Your task to perform on an android device: View the shopping cart on target. Search for beats solo 3 on target, select the first entry, add it to the cart, then select checkout. Image 0: 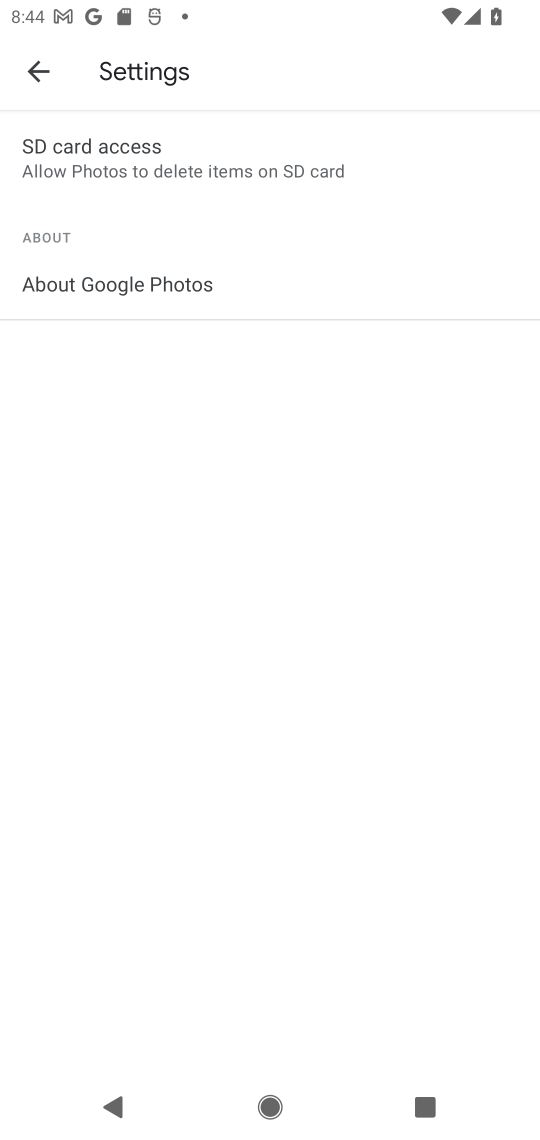
Step 0: press home button
Your task to perform on an android device: View the shopping cart on target. Search for beats solo 3 on target, select the first entry, add it to the cart, then select checkout. Image 1: 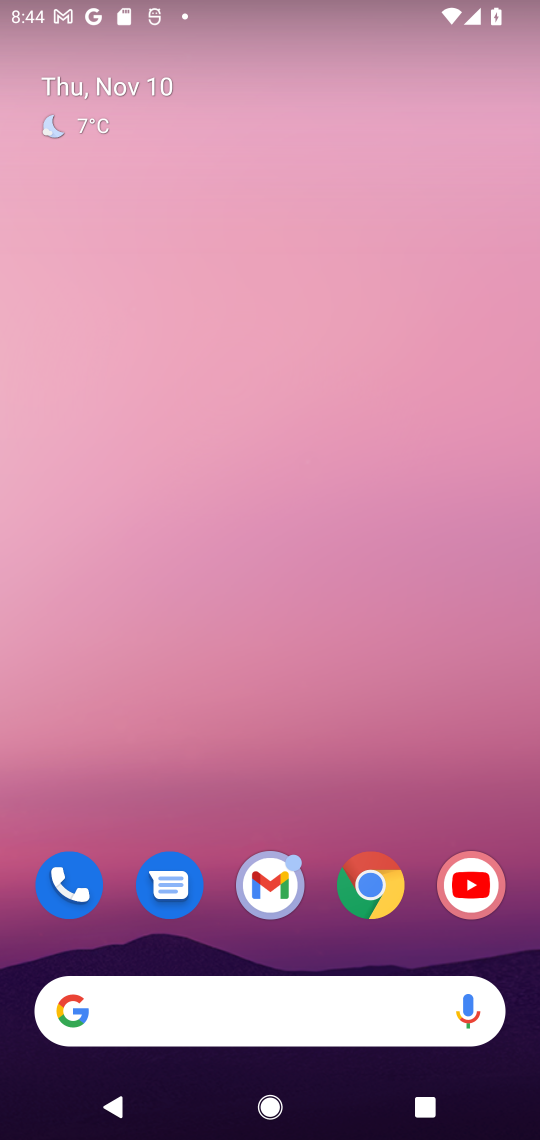
Step 1: click (356, 878)
Your task to perform on an android device: View the shopping cart on target. Search for beats solo 3 on target, select the first entry, add it to the cart, then select checkout. Image 2: 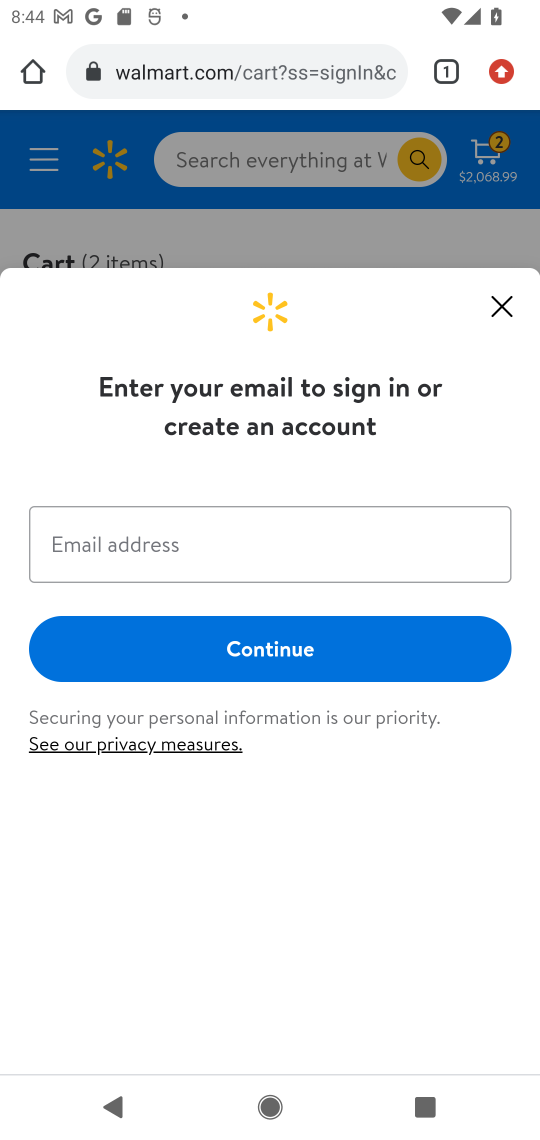
Step 2: click (231, 83)
Your task to perform on an android device: View the shopping cart on target. Search for beats solo 3 on target, select the first entry, add it to the cart, then select checkout. Image 3: 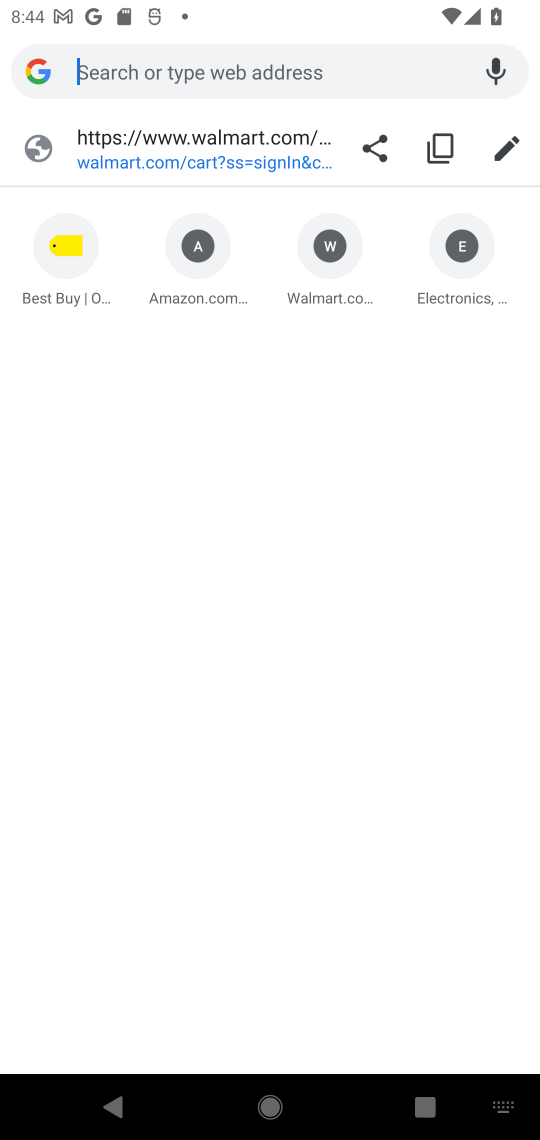
Step 3: type "target"
Your task to perform on an android device: View the shopping cart on target. Search for beats solo 3 on target, select the first entry, add it to the cart, then select checkout. Image 4: 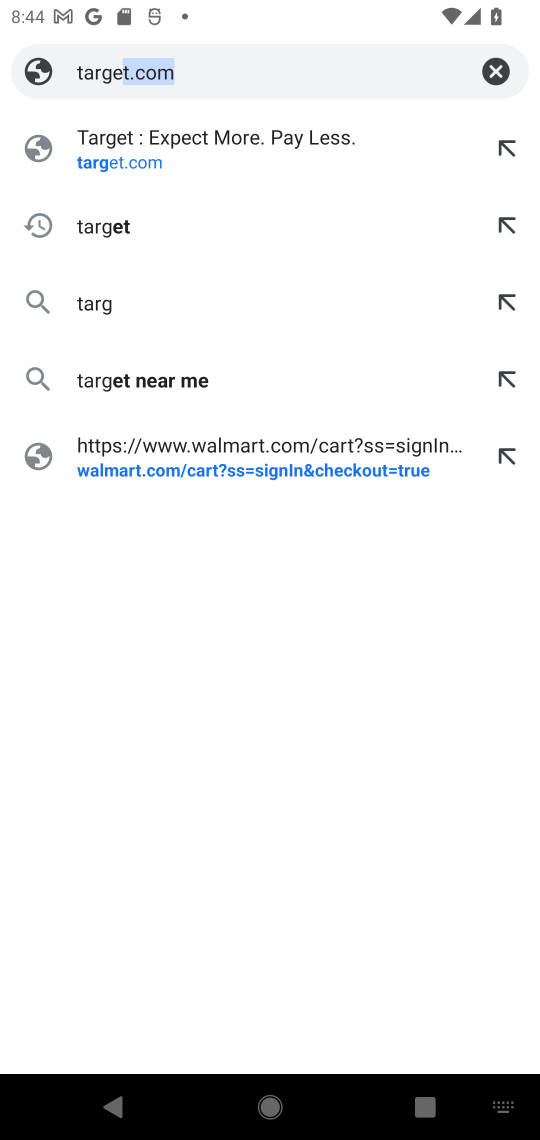
Step 4: press enter
Your task to perform on an android device: View the shopping cart on target. Search for beats solo 3 on target, select the first entry, add it to the cart, then select checkout. Image 5: 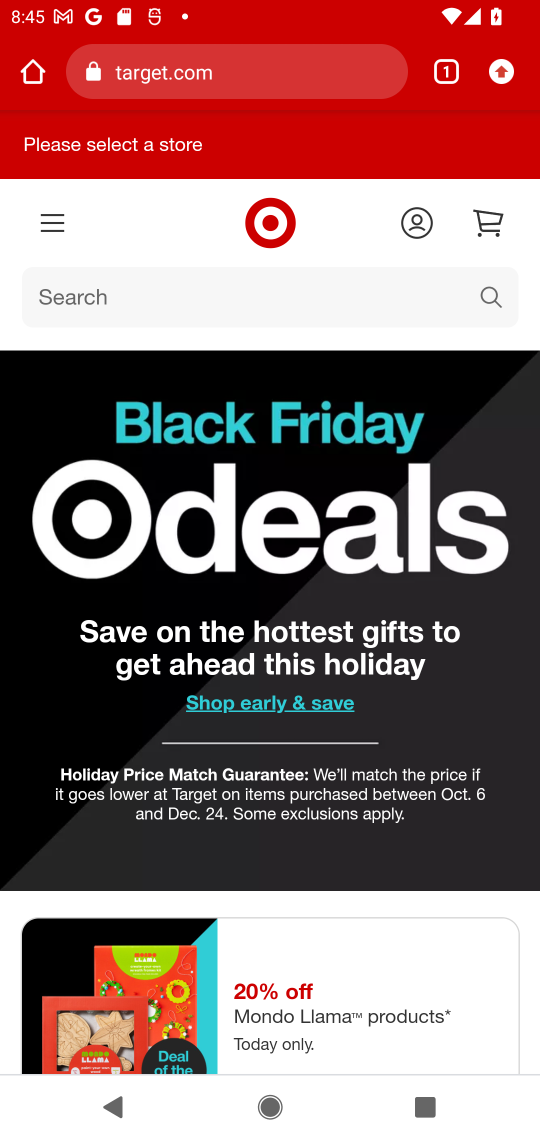
Step 5: click (494, 217)
Your task to perform on an android device: View the shopping cart on target. Search for beats solo 3 on target, select the first entry, add it to the cart, then select checkout. Image 6: 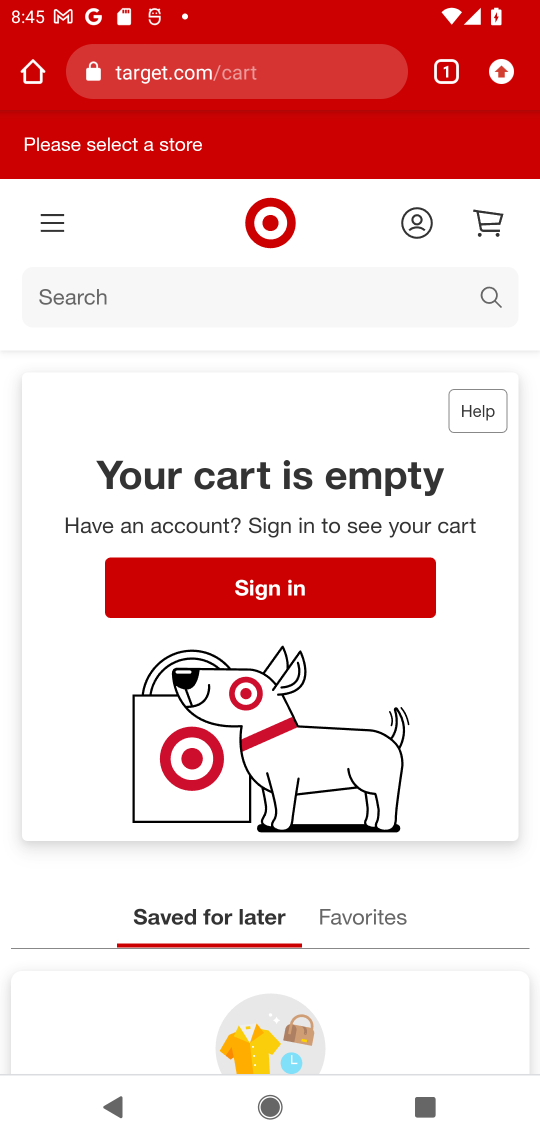
Step 6: click (491, 303)
Your task to perform on an android device: View the shopping cart on target. Search for beats solo 3 on target, select the first entry, add it to the cart, then select checkout. Image 7: 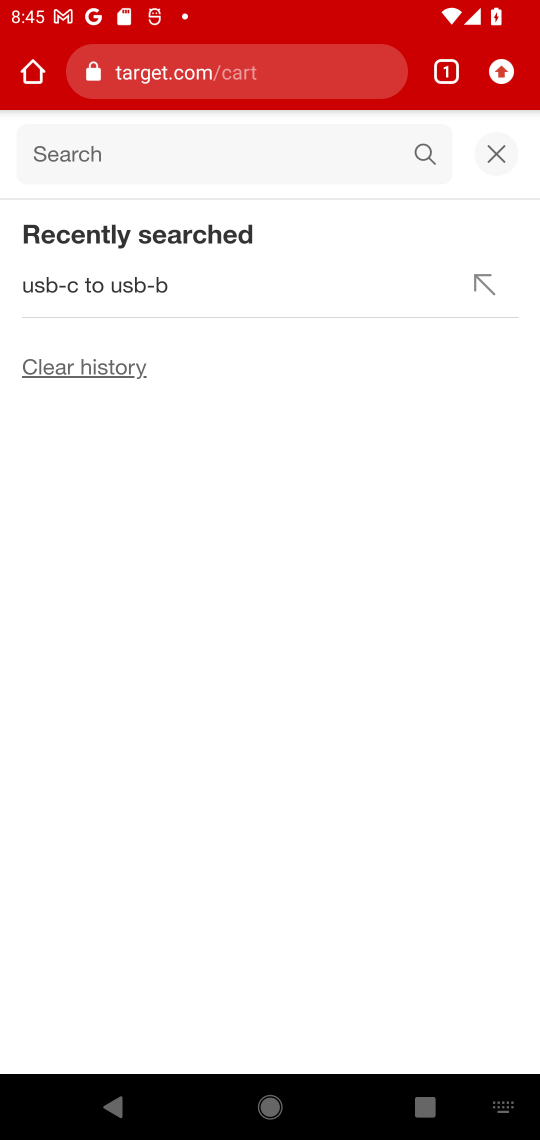
Step 7: type "beats solo 3"
Your task to perform on an android device: View the shopping cart on target. Search for beats solo 3 on target, select the first entry, add it to the cart, then select checkout. Image 8: 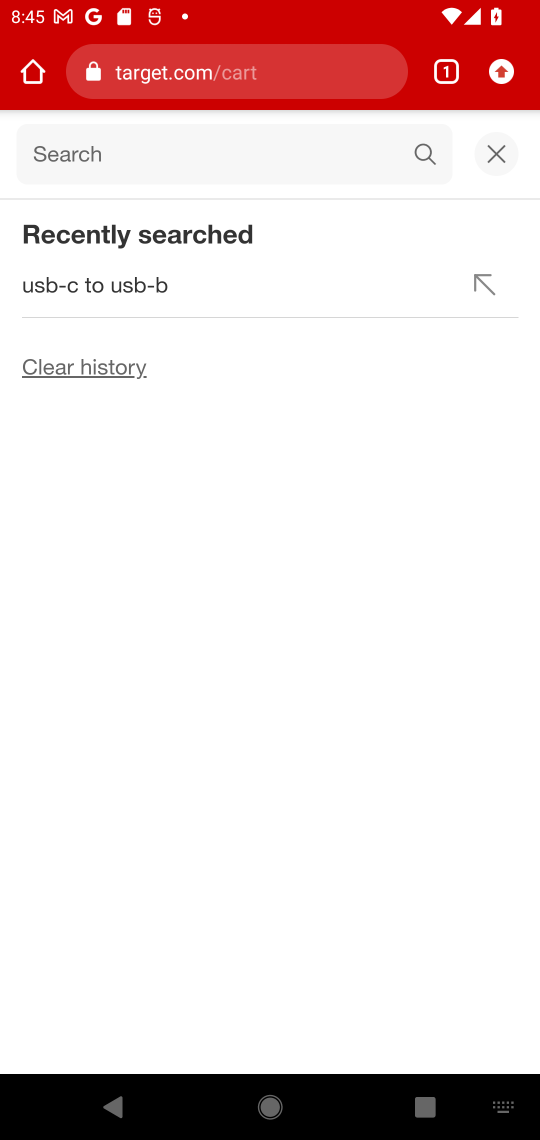
Step 8: press enter
Your task to perform on an android device: View the shopping cart on target. Search for beats solo 3 on target, select the first entry, add it to the cart, then select checkout. Image 9: 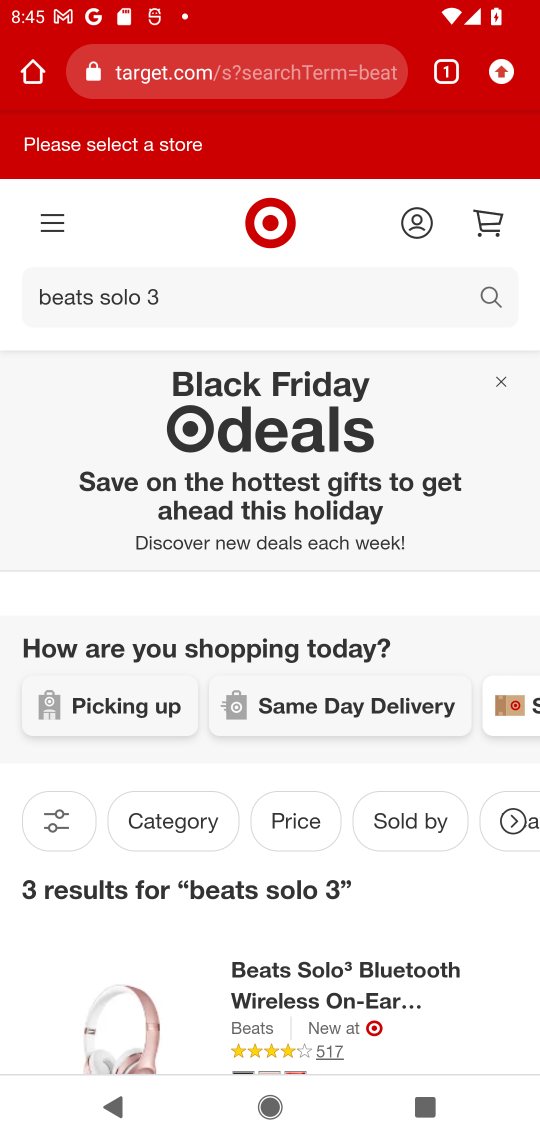
Step 9: task complete